Your task to perform on an android device: toggle notifications settings in the gmail app Image 0: 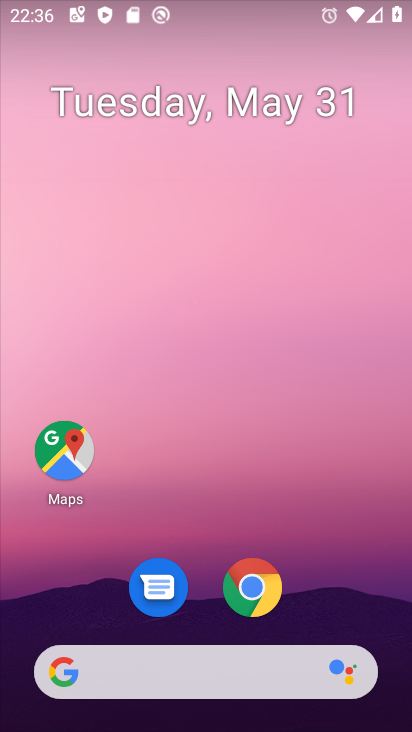
Step 0: drag from (376, 614) to (400, 160)
Your task to perform on an android device: toggle notifications settings in the gmail app Image 1: 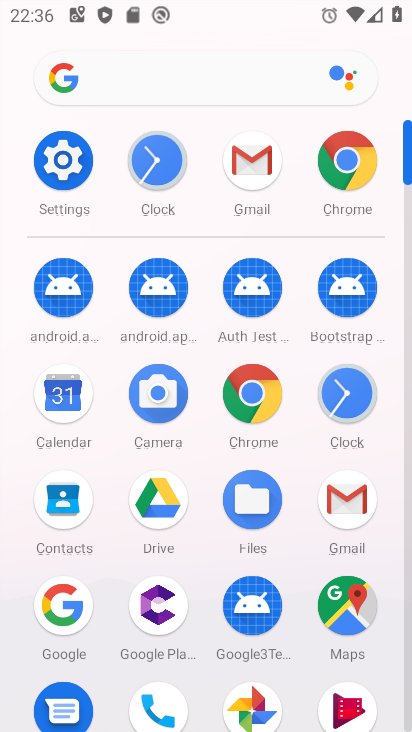
Step 1: click (356, 508)
Your task to perform on an android device: toggle notifications settings in the gmail app Image 2: 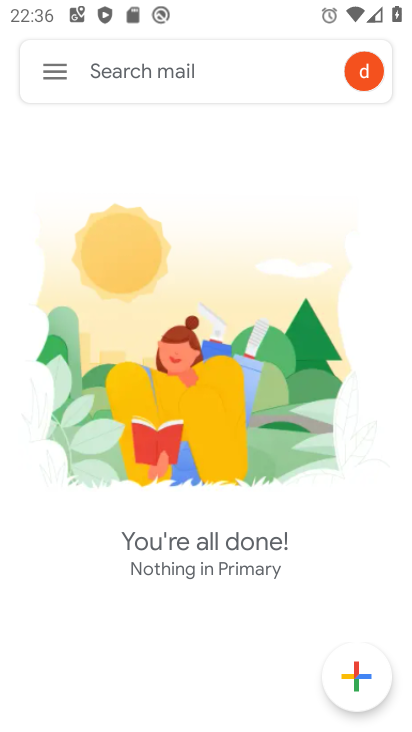
Step 2: click (65, 80)
Your task to perform on an android device: toggle notifications settings in the gmail app Image 3: 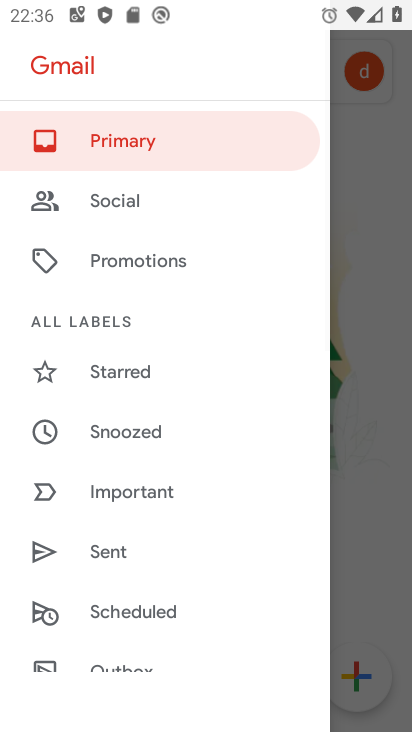
Step 3: drag from (241, 452) to (260, 361)
Your task to perform on an android device: toggle notifications settings in the gmail app Image 4: 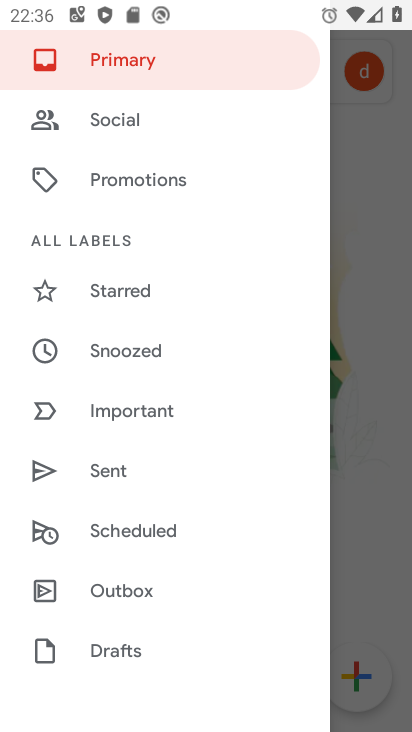
Step 4: drag from (257, 528) to (264, 410)
Your task to perform on an android device: toggle notifications settings in the gmail app Image 5: 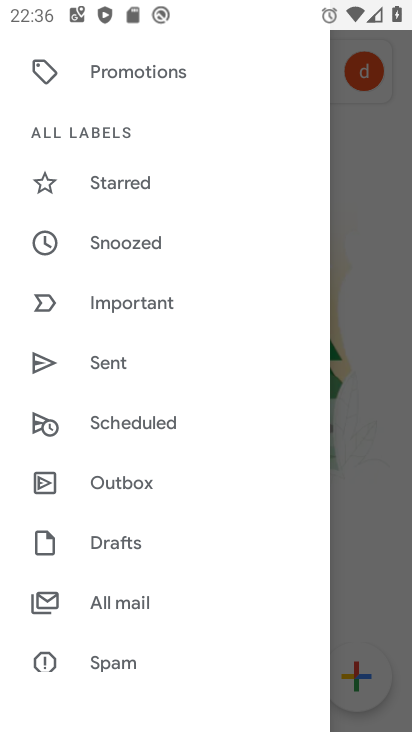
Step 5: drag from (251, 554) to (253, 417)
Your task to perform on an android device: toggle notifications settings in the gmail app Image 6: 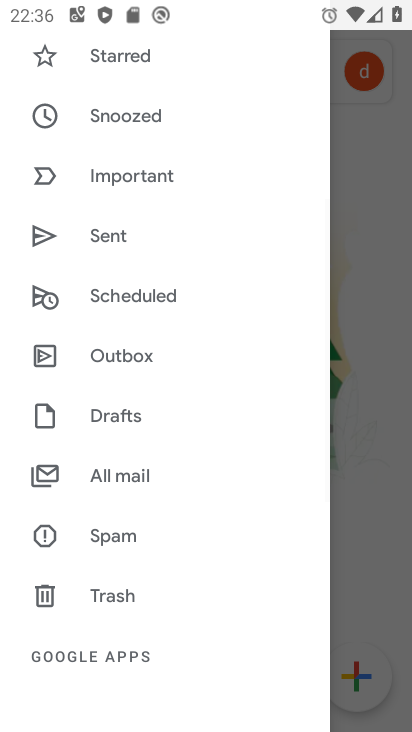
Step 6: drag from (235, 583) to (243, 450)
Your task to perform on an android device: toggle notifications settings in the gmail app Image 7: 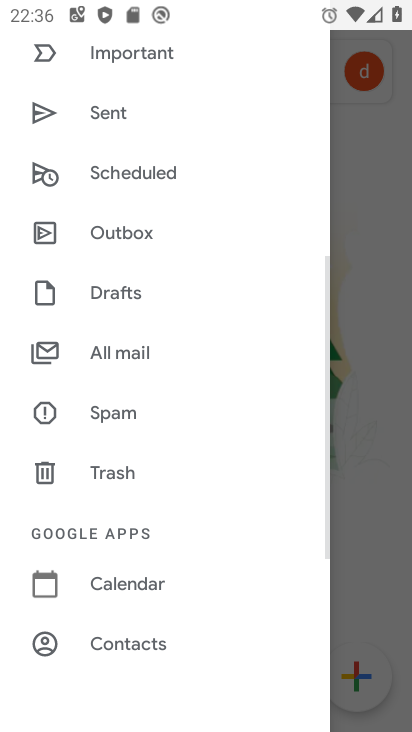
Step 7: drag from (239, 598) to (242, 484)
Your task to perform on an android device: toggle notifications settings in the gmail app Image 8: 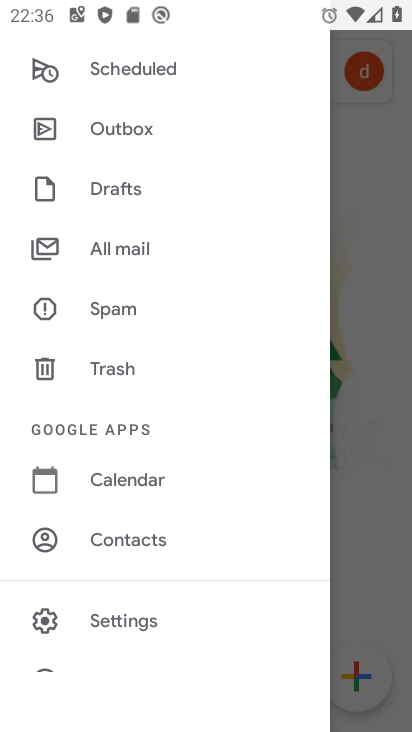
Step 8: drag from (239, 553) to (252, 474)
Your task to perform on an android device: toggle notifications settings in the gmail app Image 9: 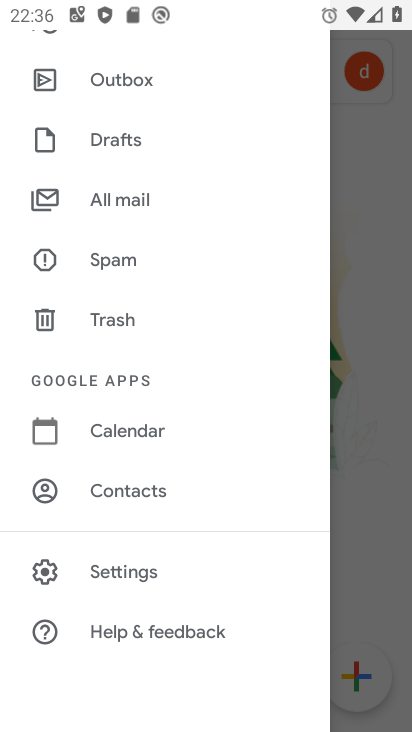
Step 9: click (184, 566)
Your task to perform on an android device: toggle notifications settings in the gmail app Image 10: 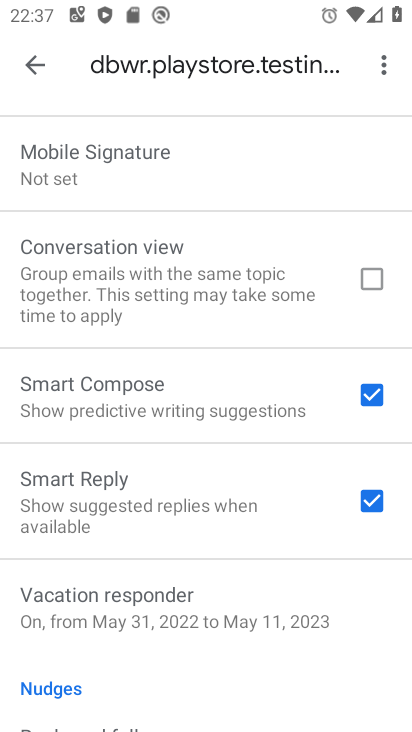
Step 10: drag from (249, 532) to (258, 429)
Your task to perform on an android device: toggle notifications settings in the gmail app Image 11: 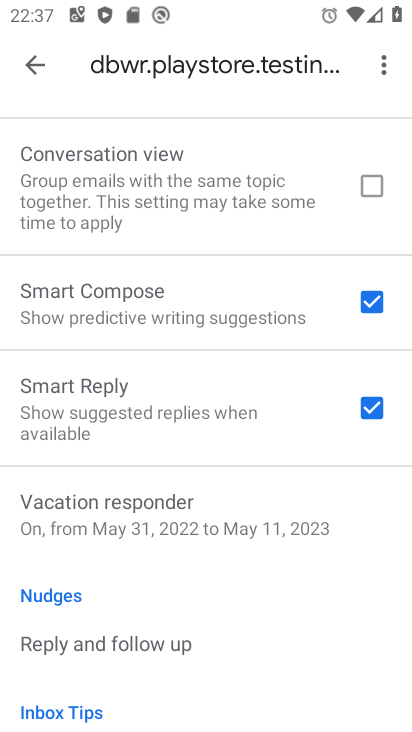
Step 11: drag from (286, 293) to (278, 443)
Your task to perform on an android device: toggle notifications settings in the gmail app Image 12: 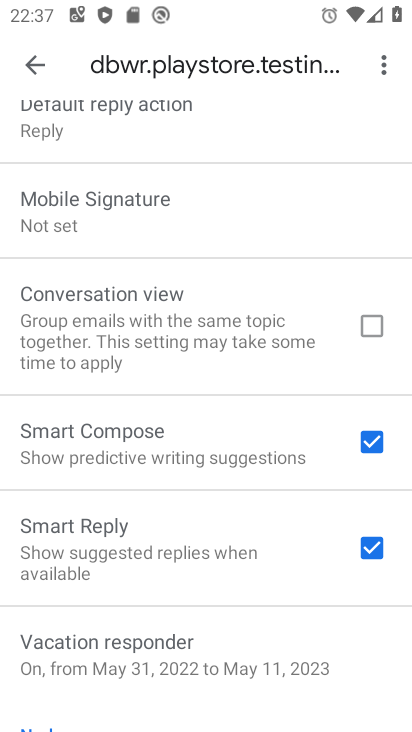
Step 12: drag from (267, 227) to (254, 333)
Your task to perform on an android device: toggle notifications settings in the gmail app Image 13: 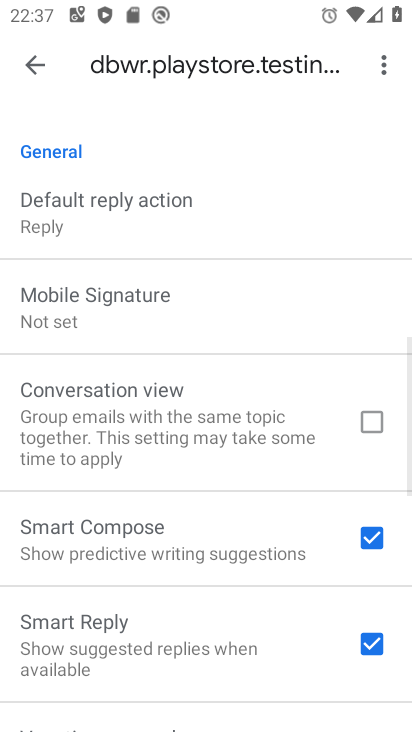
Step 13: drag from (267, 224) to (270, 305)
Your task to perform on an android device: toggle notifications settings in the gmail app Image 14: 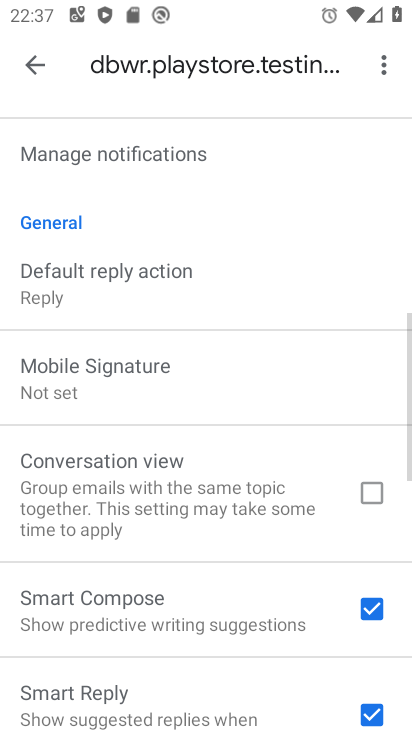
Step 14: drag from (268, 219) to (281, 338)
Your task to perform on an android device: toggle notifications settings in the gmail app Image 15: 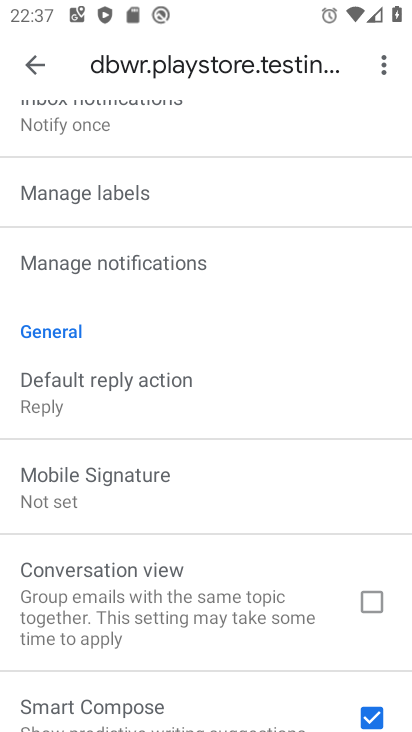
Step 15: click (230, 275)
Your task to perform on an android device: toggle notifications settings in the gmail app Image 16: 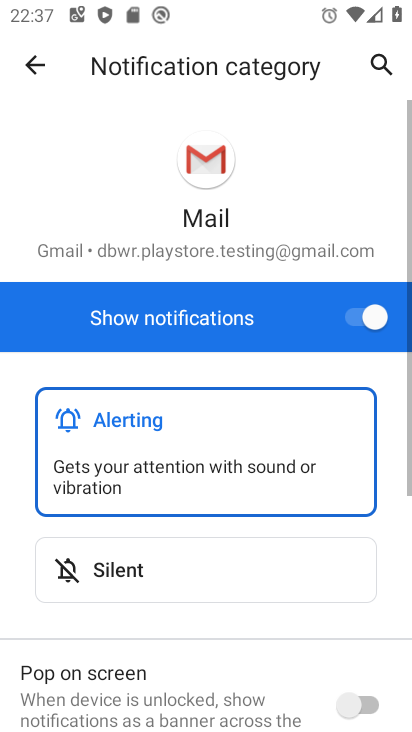
Step 16: click (359, 319)
Your task to perform on an android device: toggle notifications settings in the gmail app Image 17: 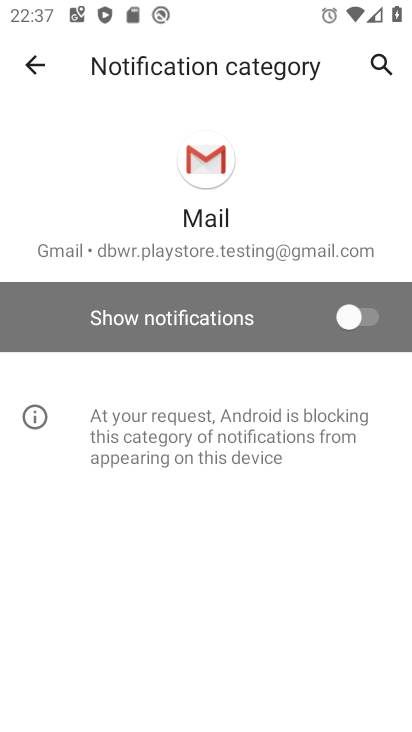
Step 17: task complete